Your task to perform on an android device: Open the Play Movies app and select the watchlist tab. Image 0: 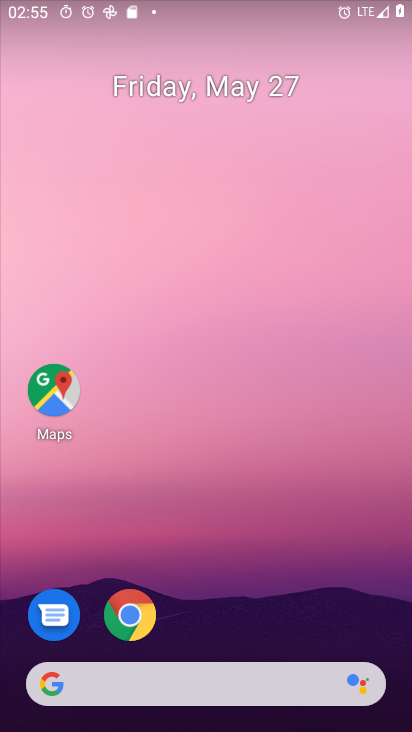
Step 0: drag from (369, 643) to (349, 297)
Your task to perform on an android device: Open the Play Movies app and select the watchlist tab. Image 1: 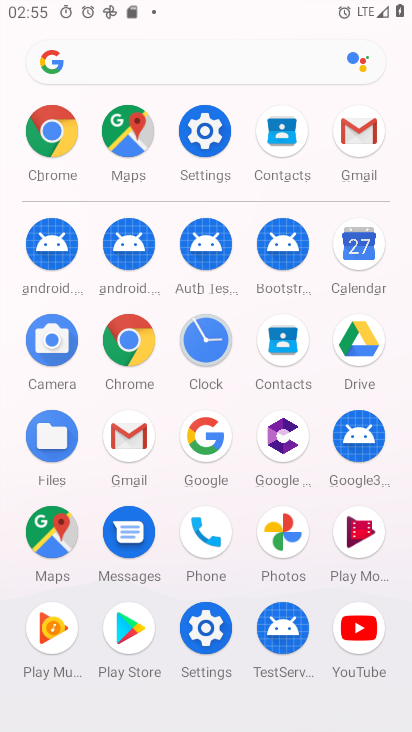
Step 1: click (365, 540)
Your task to perform on an android device: Open the Play Movies app and select the watchlist tab. Image 2: 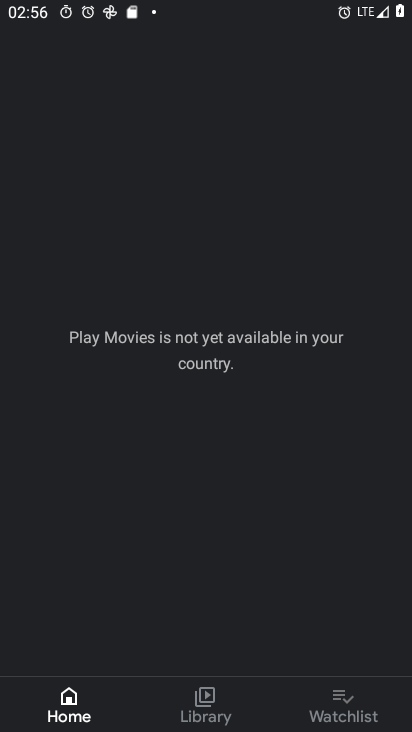
Step 2: click (339, 696)
Your task to perform on an android device: Open the Play Movies app and select the watchlist tab. Image 3: 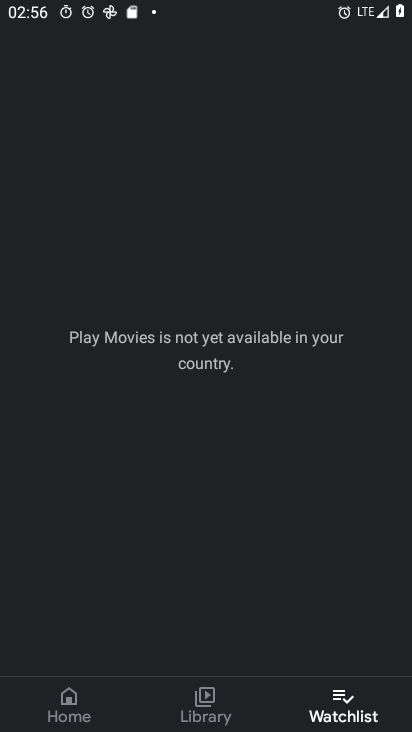
Step 3: task complete